Your task to perform on an android device: toggle wifi Image 0: 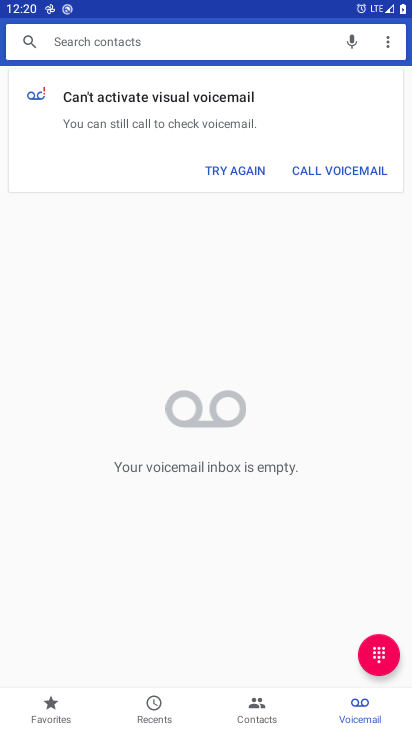
Step 0: press home button
Your task to perform on an android device: toggle wifi Image 1: 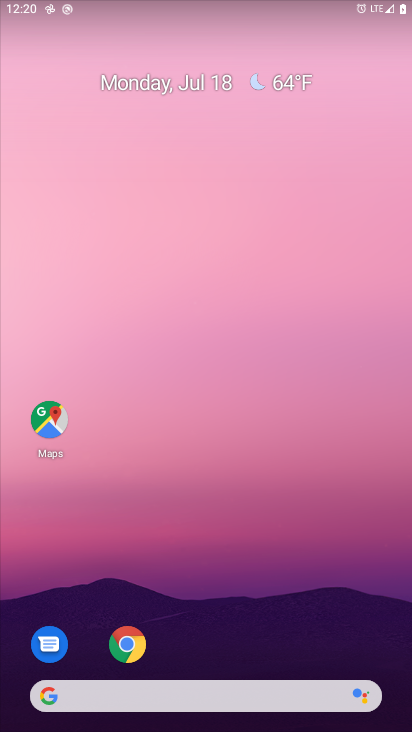
Step 1: drag from (250, 626) to (321, 157)
Your task to perform on an android device: toggle wifi Image 2: 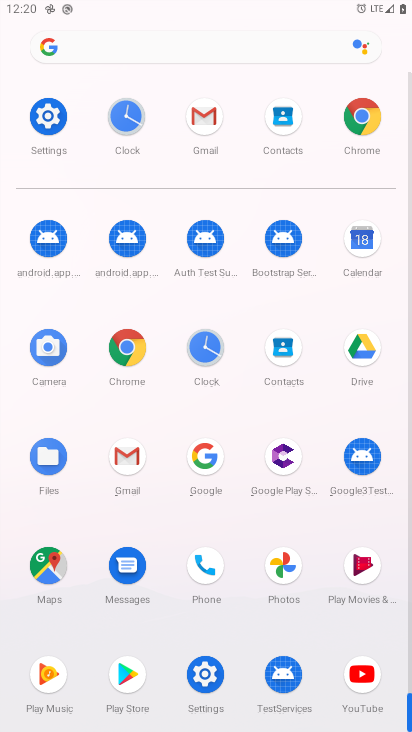
Step 2: click (48, 112)
Your task to perform on an android device: toggle wifi Image 3: 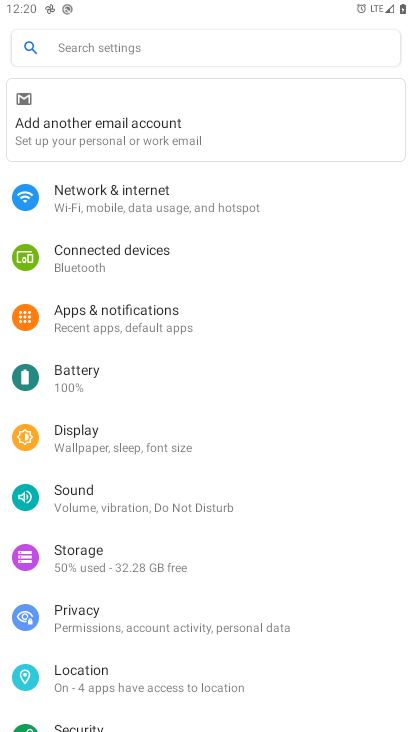
Step 3: click (146, 193)
Your task to perform on an android device: toggle wifi Image 4: 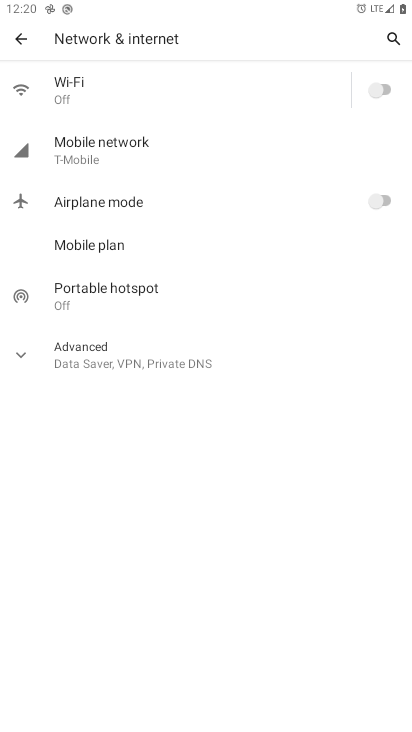
Step 4: click (382, 89)
Your task to perform on an android device: toggle wifi Image 5: 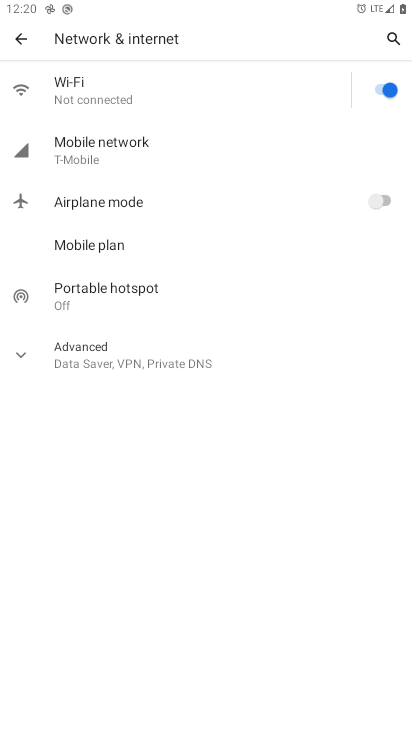
Step 5: task complete